Your task to perform on an android device: allow cookies in the chrome app Image 0: 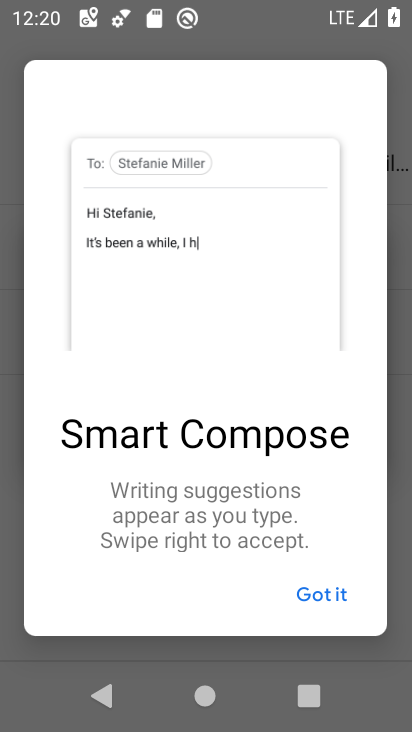
Step 0: press home button
Your task to perform on an android device: allow cookies in the chrome app Image 1: 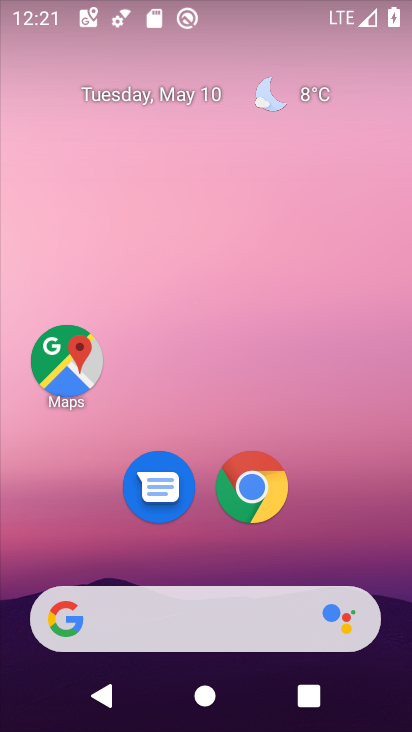
Step 1: click (245, 478)
Your task to perform on an android device: allow cookies in the chrome app Image 2: 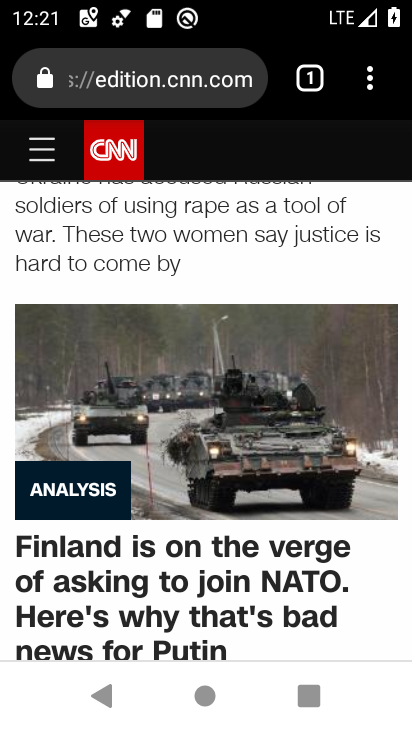
Step 2: click (378, 72)
Your task to perform on an android device: allow cookies in the chrome app Image 3: 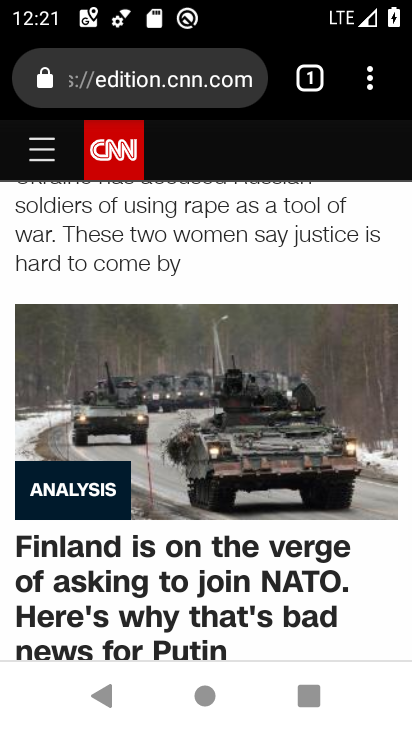
Step 3: click (370, 74)
Your task to perform on an android device: allow cookies in the chrome app Image 4: 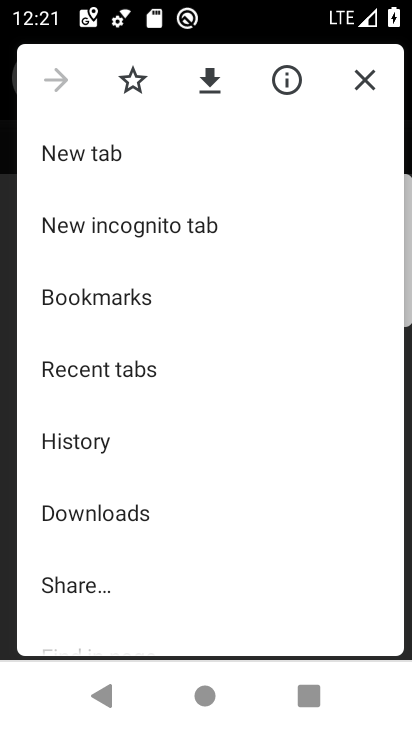
Step 4: drag from (196, 578) to (259, 111)
Your task to perform on an android device: allow cookies in the chrome app Image 5: 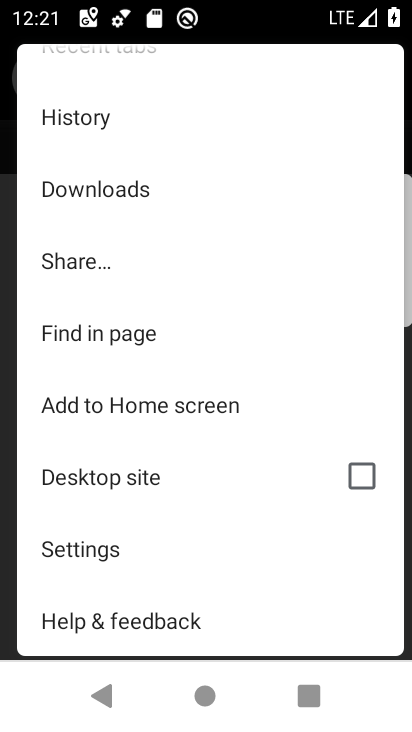
Step 5: click (137, 547)
Your task to perform on an android device: allow cookies in the chrome app Image 6: 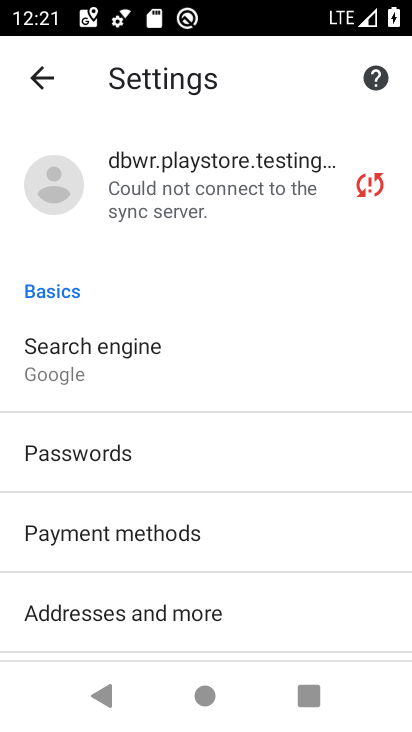
Step 6: drag from (247, 617) to (280, 318)
Your task to perform on an android device: allow cookies in the chrome app Image 7: 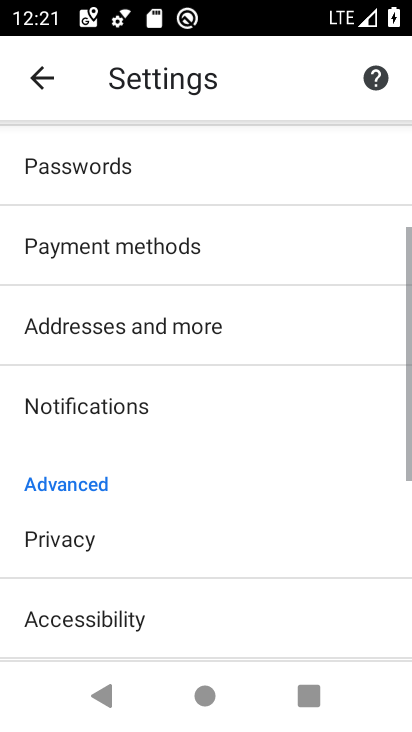
Step 7: drag from (280, 224) to (280, 186)
Your task to perform on an android device: allow cookies in the chrome app Image 8: 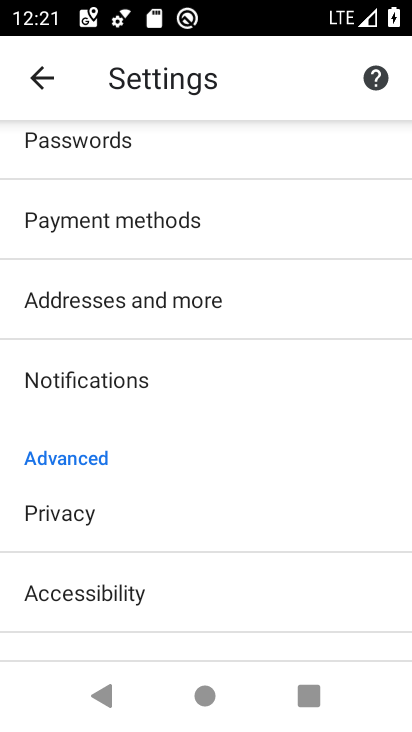
Step 8: drag from (189, 591) to (247, 148)
Your task to perform on an android device: allow cookies in the chrome app Image 9: 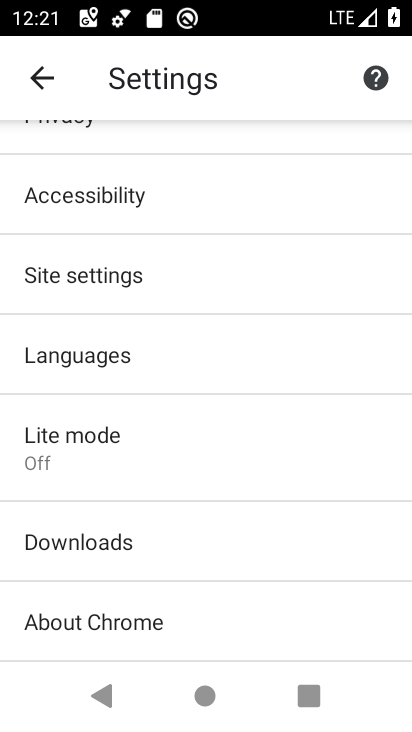
Step 9: click (160, 279)
Your task to perform on an android device: allow cookies in the chrome app Image 10: 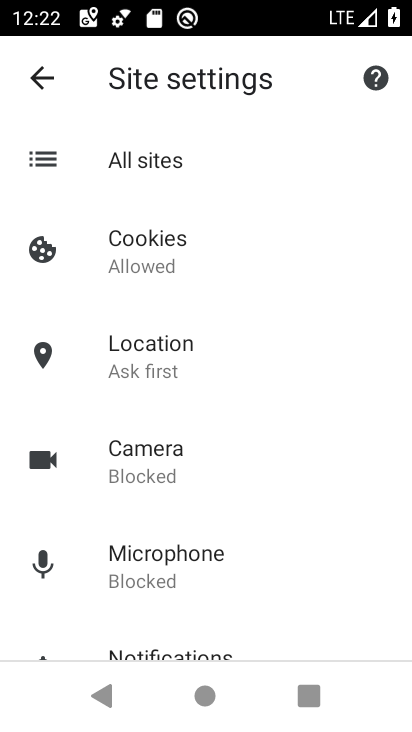
Step 10: click (185, 248)
Your task to perform on an android device: allow cookies in the chrome app Image 11: 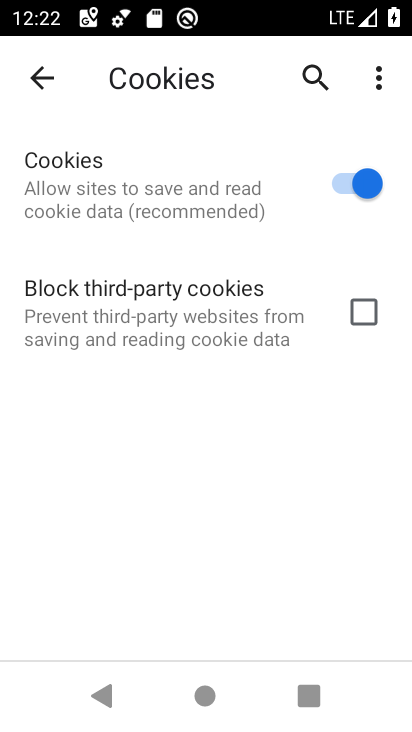
Step 11: task complete